Your task to perform on an android device: clear history in the chrome app Image 0: 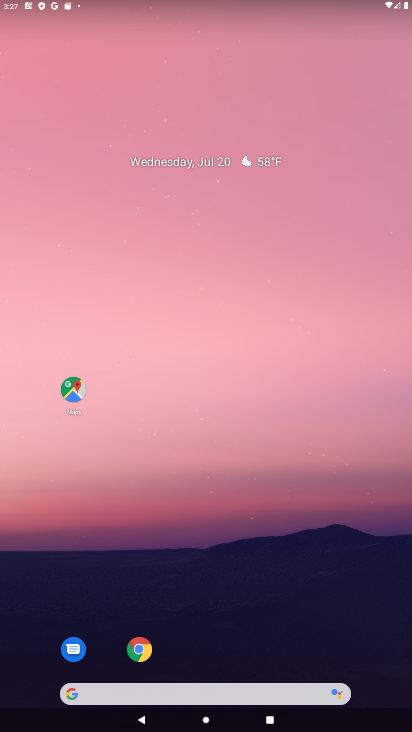
Step 0: drag from (230, 729) to (227, 171)
Your task to perform on an android device: clear history in the chrome app Image 1: 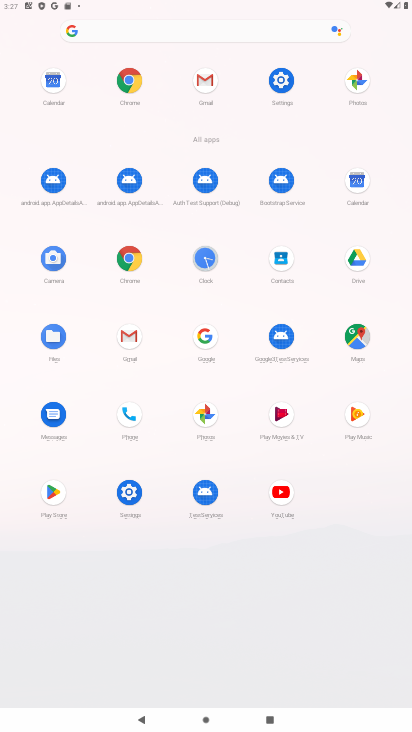
Step 1: click (130, 263)
Your task to perform on an android device: clear history in the chrome app Image 2: 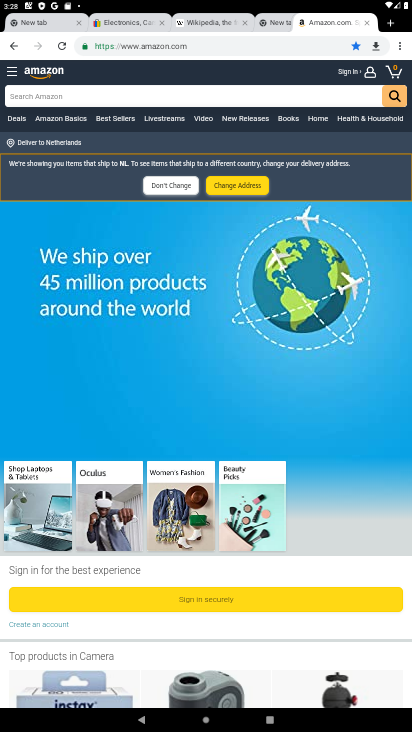
Step 2: click (402, 49)
Your task to perform on an android device: clear history in the chrome app Image 3: 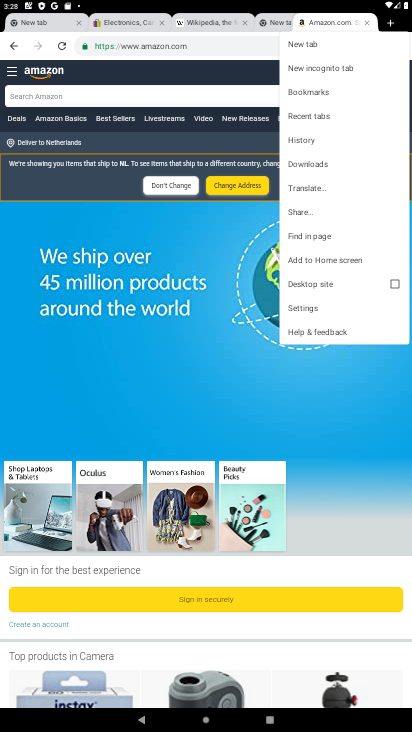
Step 3: click (300, 136)
Your task to perform on an android device: clear history in the chrome app Image 4: 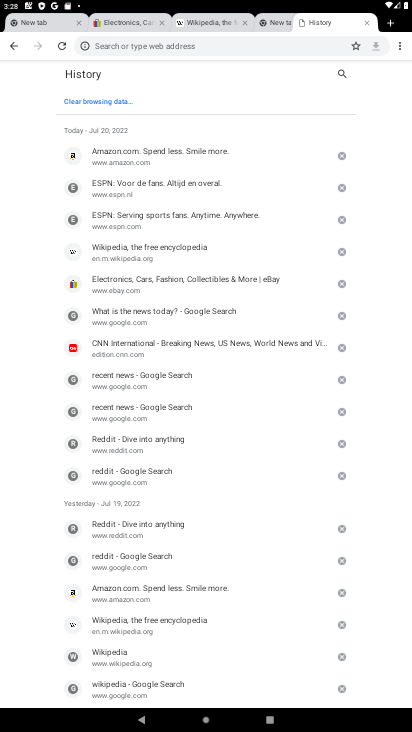
Step 4: click (100, 97)
Your task to perform on an android device: clear history in the chrome app Image 5: 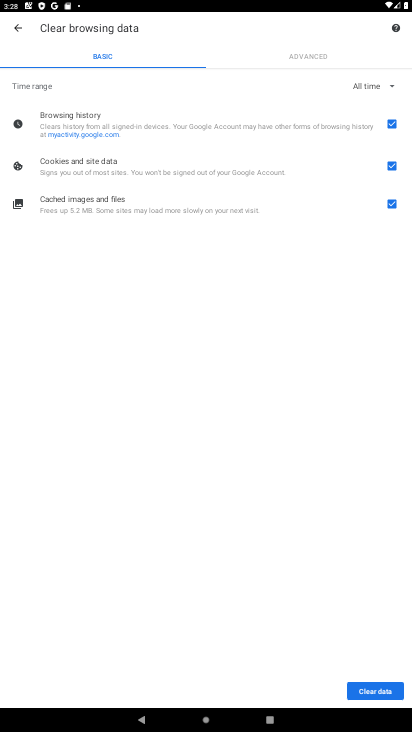
Step 5: click (393, 199)
Your task to perform on an android device: clear history in the chrome app Image 6: 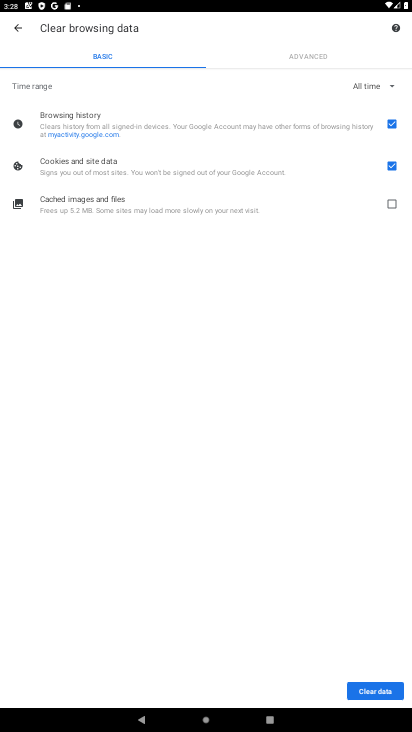
Step 6: click (393, 166)
Your task to perform on an android device: clear history in the chrome app Image 7: 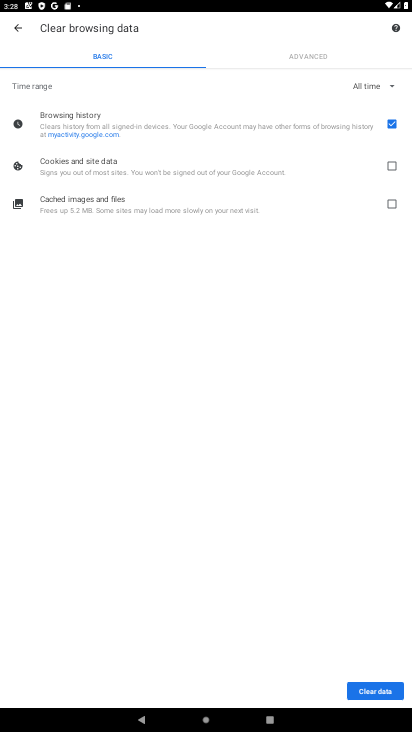
Step 7: click (373, 687)
Your task to perform on an android device: clear history in the chrome app Image 8: 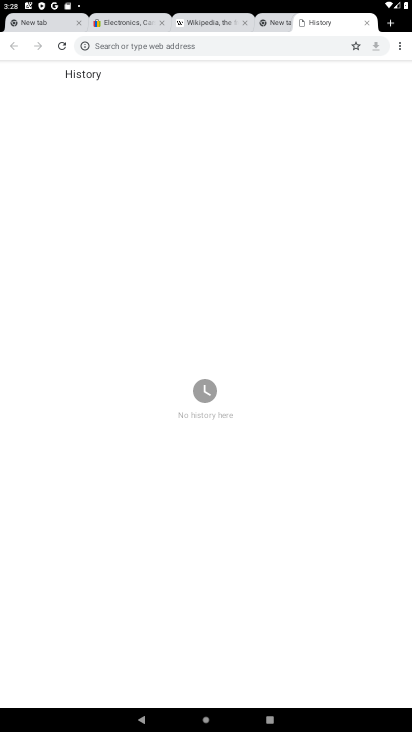
Step 8: task complete